Your task to perform on an android device: Open Youtube and go to "Your channel" Image 0: 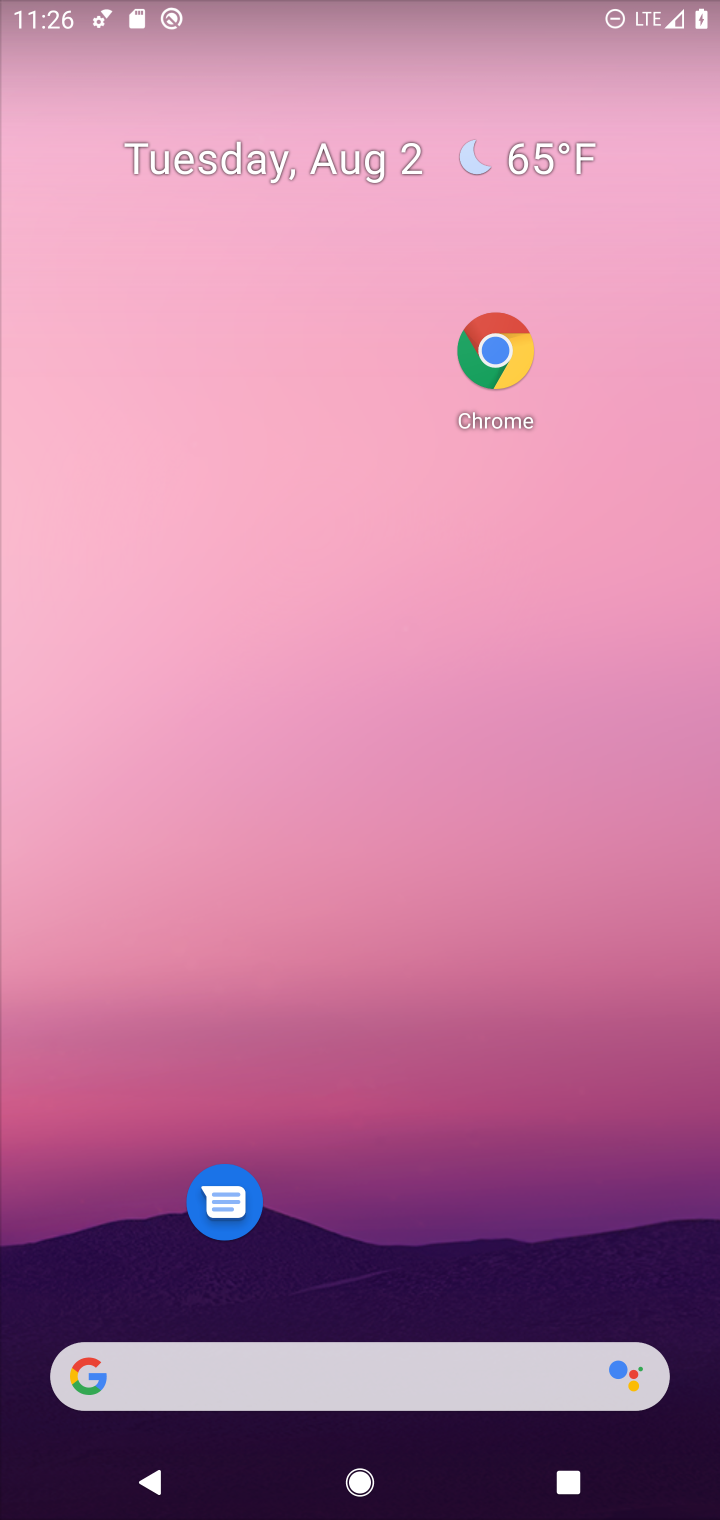
Step 0: drag from (406, 857) to (373, 101)
Your task to perform on an android device: Open Youtube and go to "Your channel" Image 1: 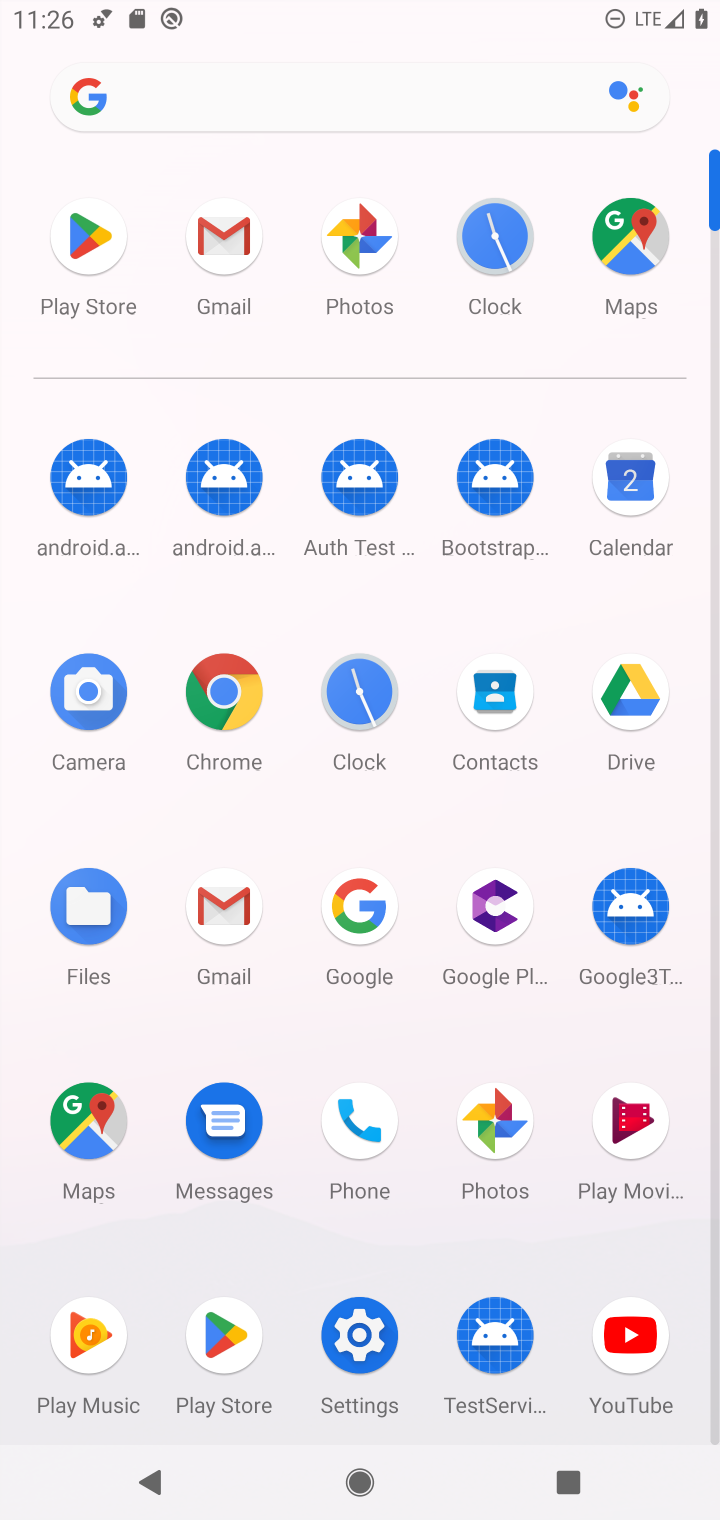
Step 1: click (637, 1327)
Your task to perform on an android device: Open Youtube and go to "Your channel" Image 2: 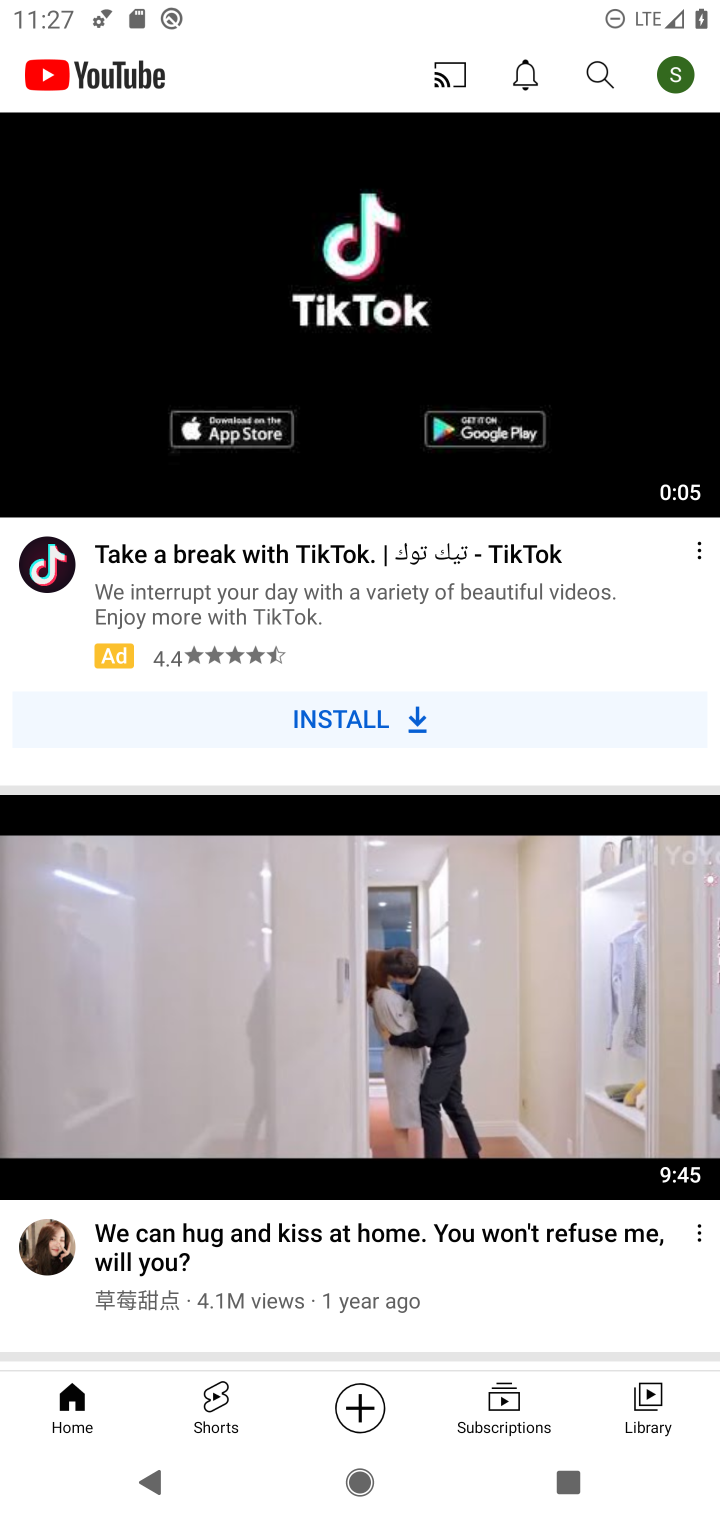
Step 2: click (658, 87)
Your task to perform on an android device: Open Youtube and go to "Your channel" Image 3: 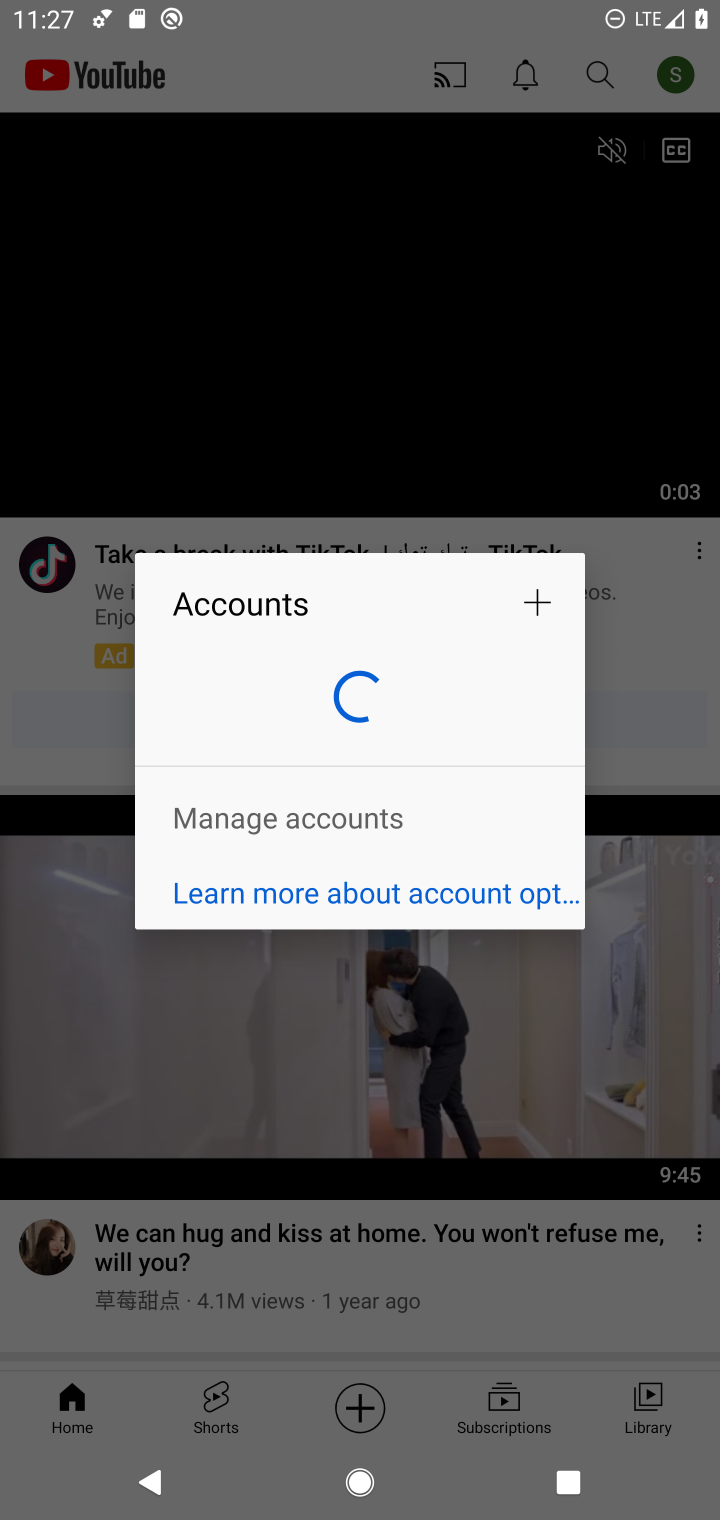
Step 3: click (671, 82)
Your task to perform on an android device: Open Youtube and go to "Your channel" Image 4: 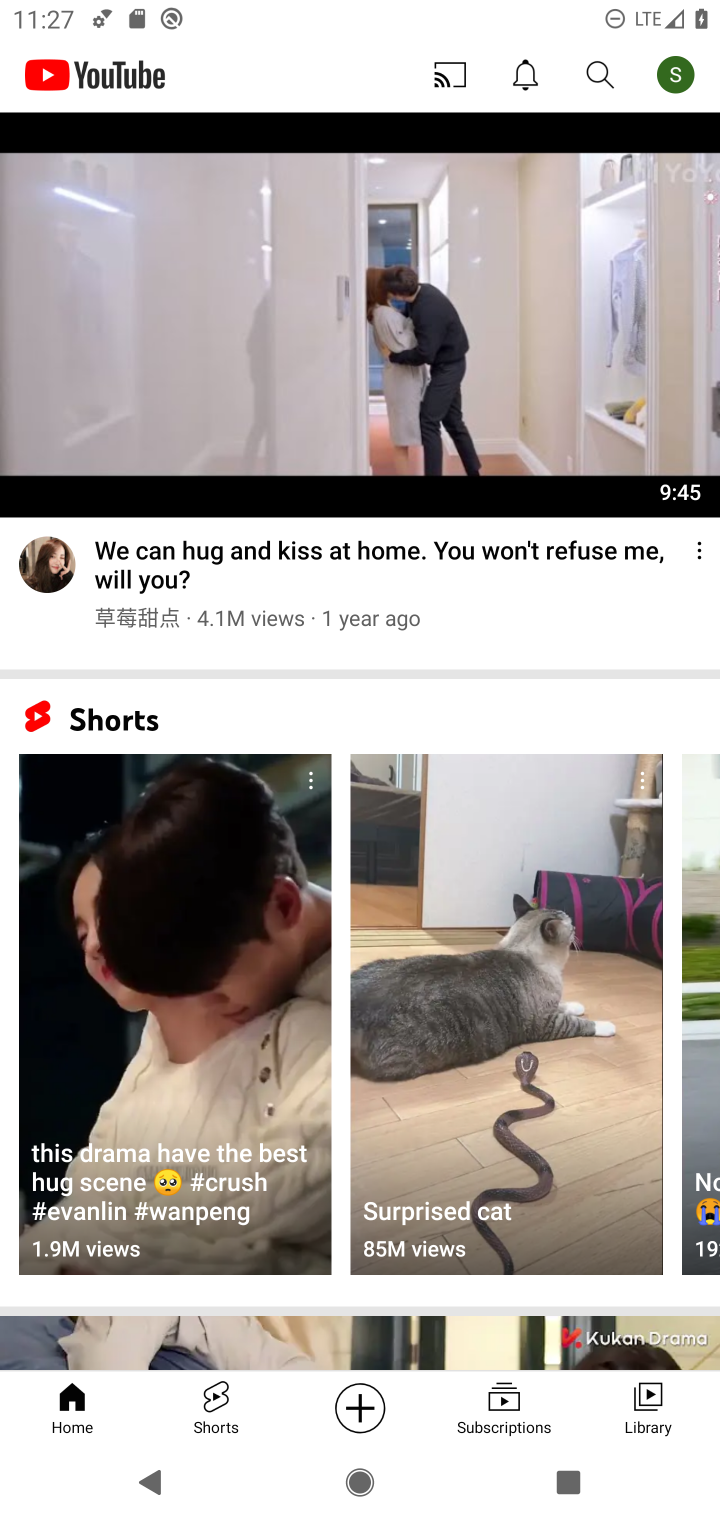
Step 4: click (671, 82)
Your task to perform on an android device: Open Youtube and go to "Your channel" Image 5: 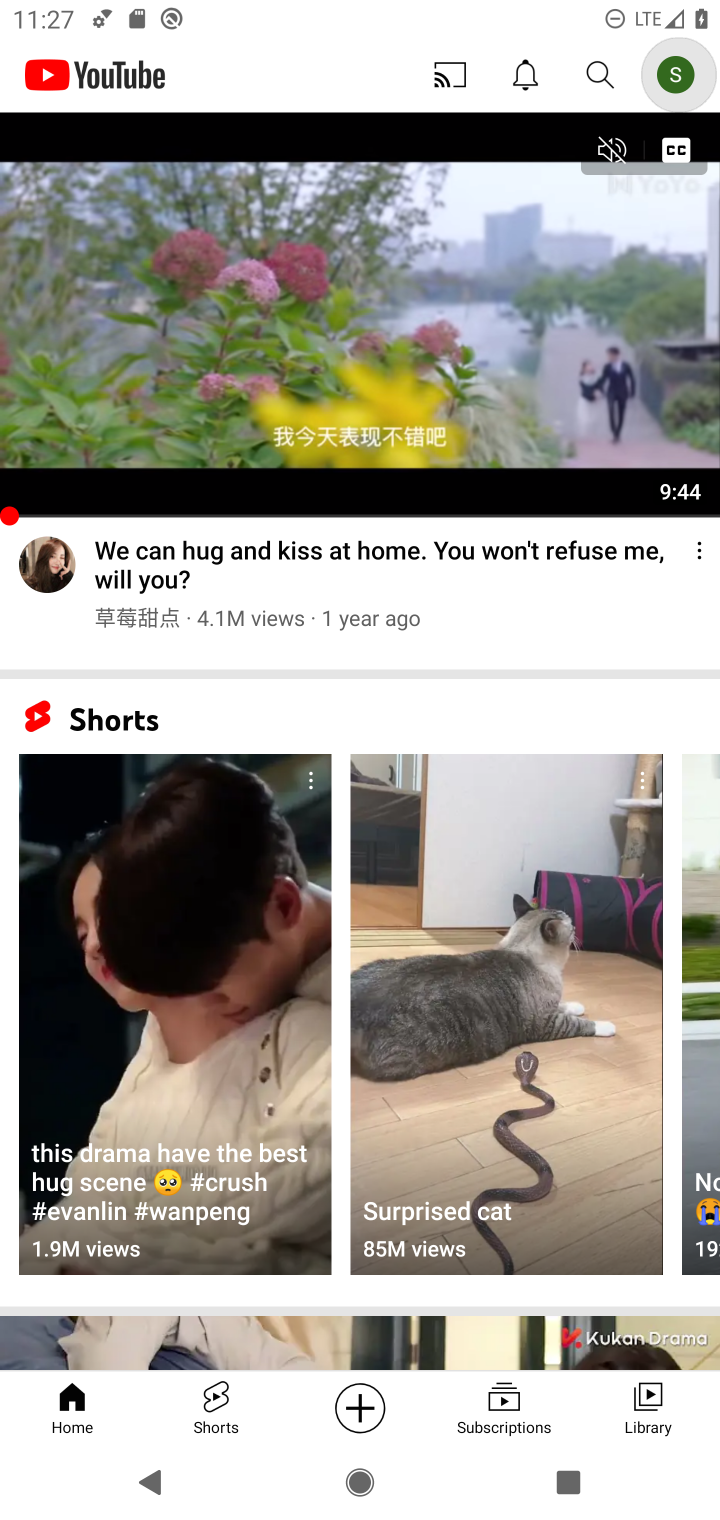
Step 5: click (671, 82)
Your task to perform on an android device: Open Youtube and go to "Your channel" Image 6: 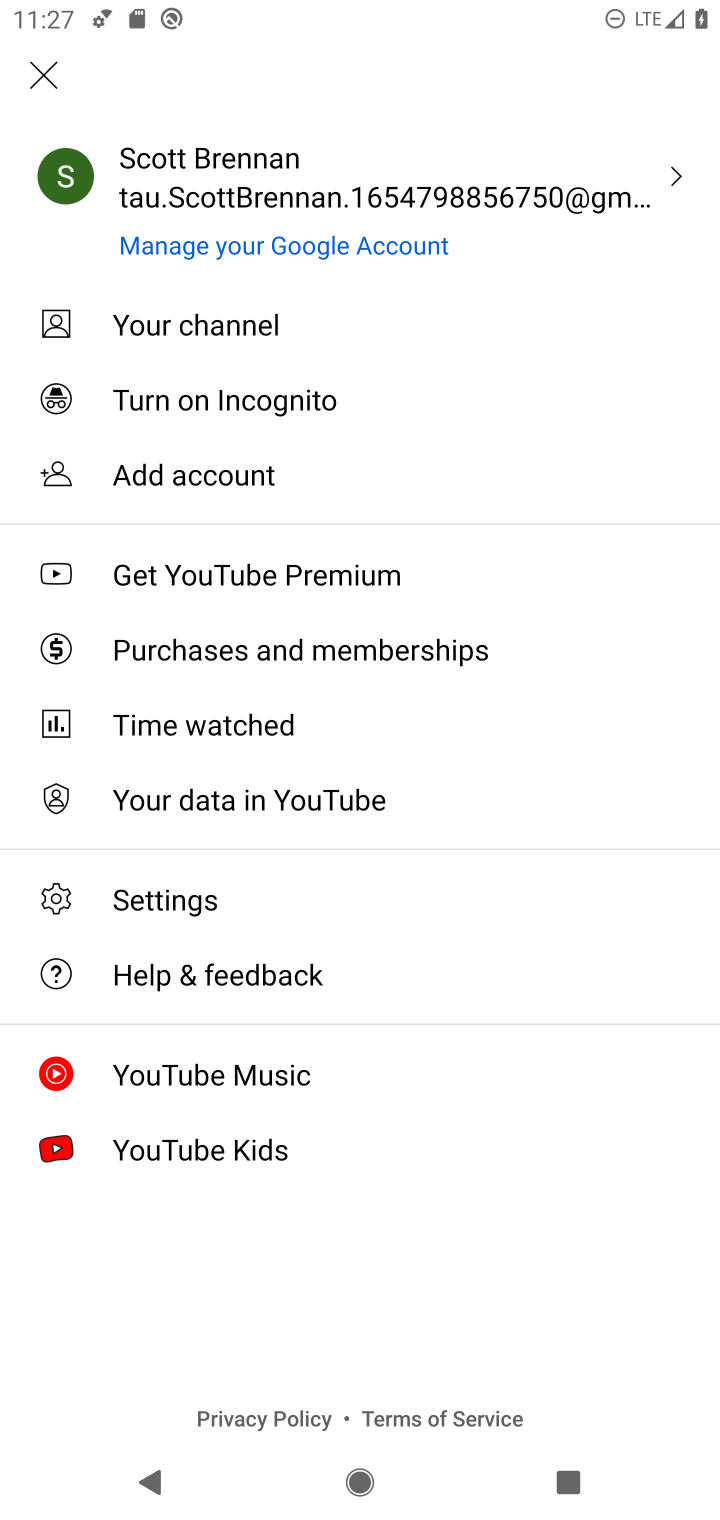
Step 6: click (191, 331)
Your task to perform on an android device: Open Youtube and go to "Your channel" Image 7: 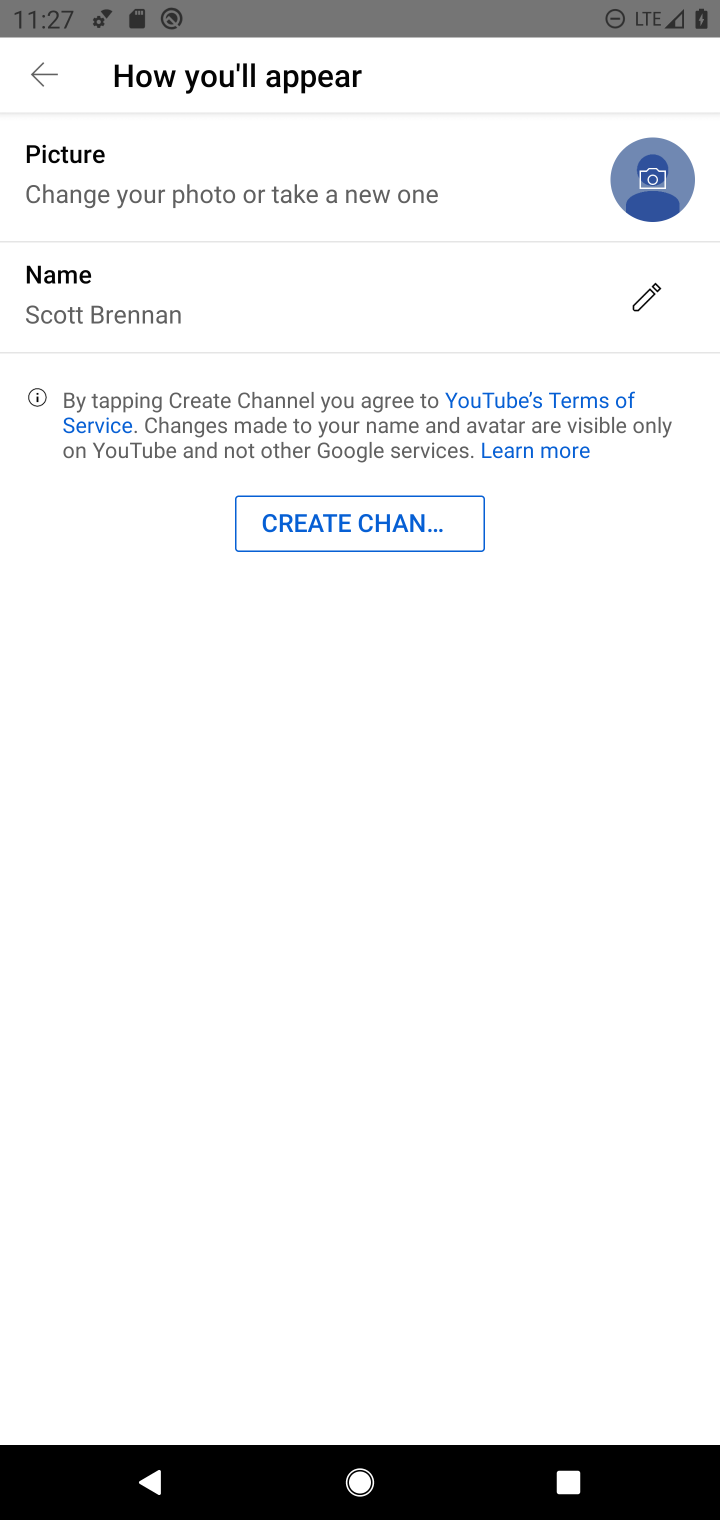
Step 7: task complete